Your task to perform on an android device: What is the news today? Image 0: 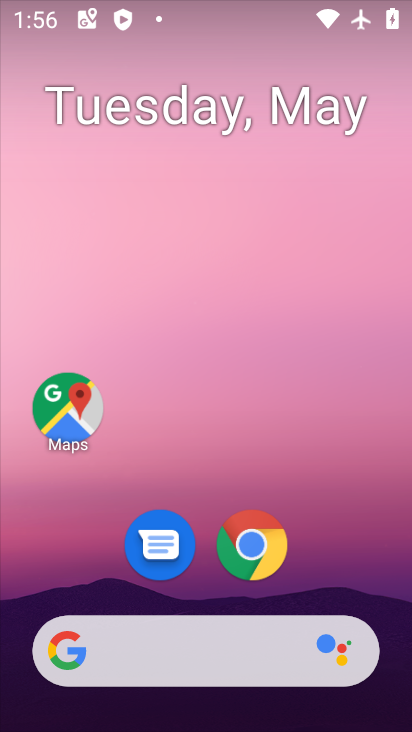
Step 0: drag from (13, 294) to (359, 462)
Your task to perform on an android device: What is the news today? Image 1: 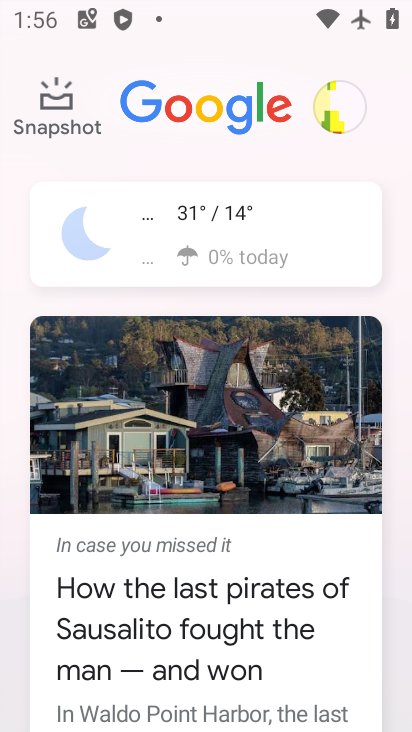
Step 1: task complete